Your task to perform on an android device: Open Maps and search for coffee Image 0: 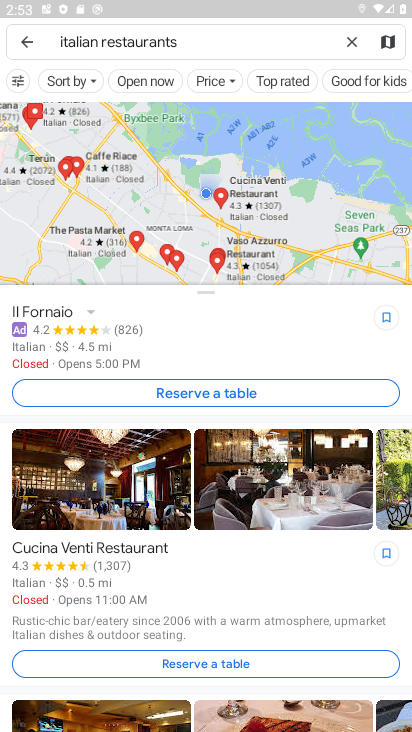
Step 0: click (348, 39)
Your task to perform on an android device: Open Maps and search for coffee Image 1: 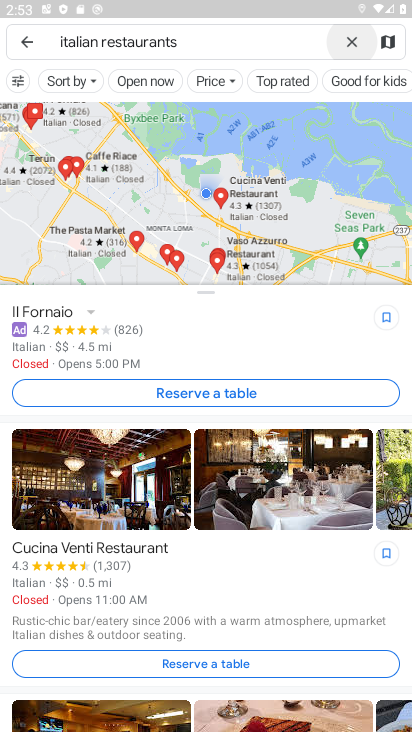
Step 1: click (352, 38)
Your task to perform on an android device: Open Maps and search for coffee Image 2: 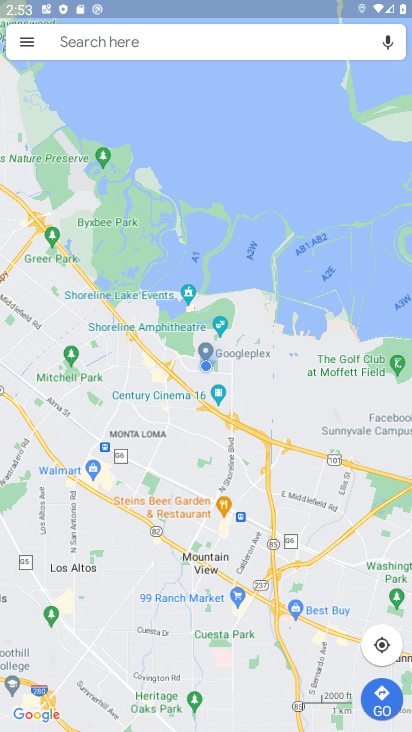
Step 2: click (183, 36)
Your task to perform on an android device: Open Maps and search for coffee Image 3: 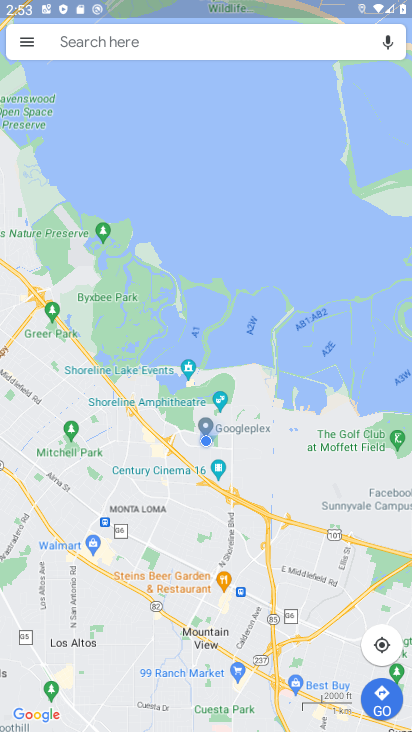
Step 3: click (350, 33)
Your task to perform on an android device: Open Maps and search for coffee Image 4: 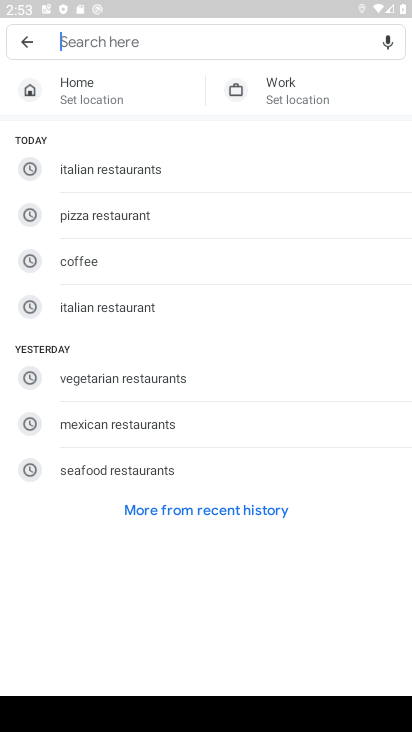
Step 4: click (32, 44)
Your task to perform on an android device: Open Maps and search for coffee Image 5: 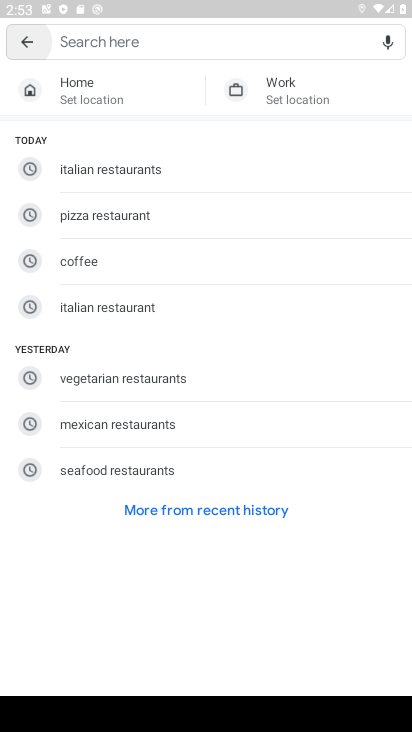
Step 5: click (29, 48)
Your task to perform on an android device: Open Maps and search for coffee Image 6: 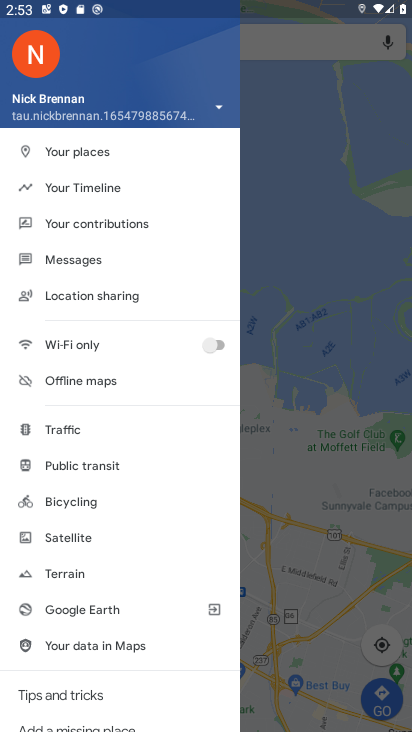
Step 6: click (289, 154)
Your task to perform on an android device: Open Maps and search for coffee Image 7: 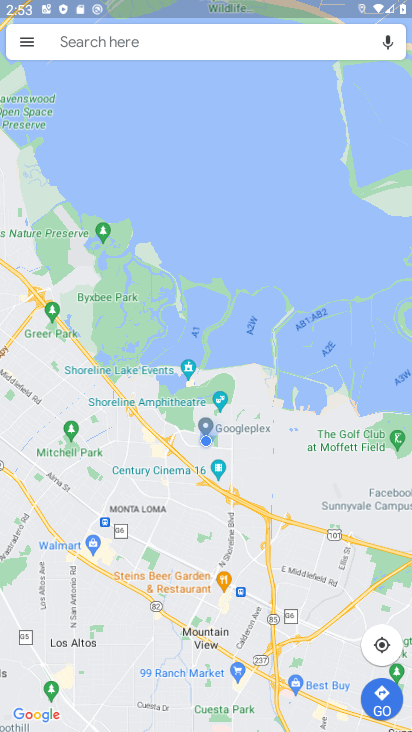
Step 7: click (141, 52)
Your task to perform on an android device: Open Maps and search for coffee Image 8: 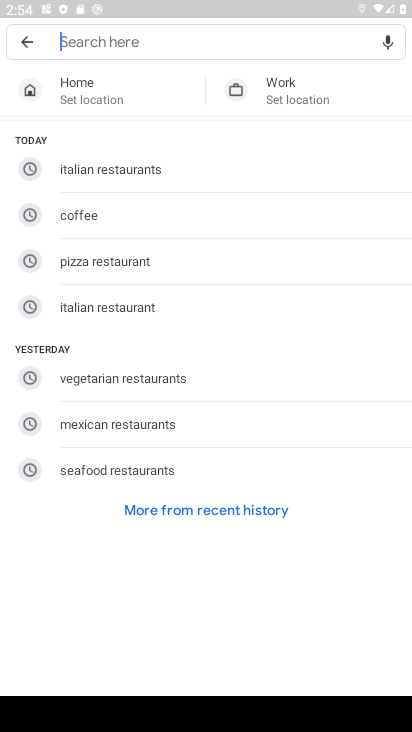
Step 8: type "coffee"
Your task to perform on an android device: Open Maps and search for coffee Image 9: 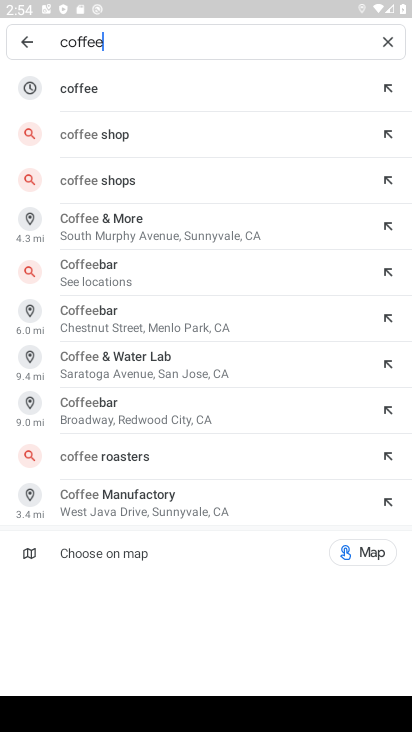
Step 9: click (88, 88)
Your task to perform on an android device: Open Maps and search for coffee Image 10: 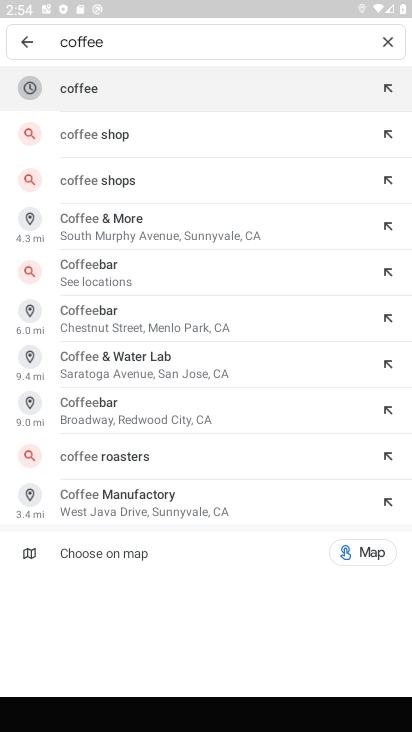
Step 10: click (93, 96)
Your task to perform on an android device: Open Maps and search for coffee Image 11: 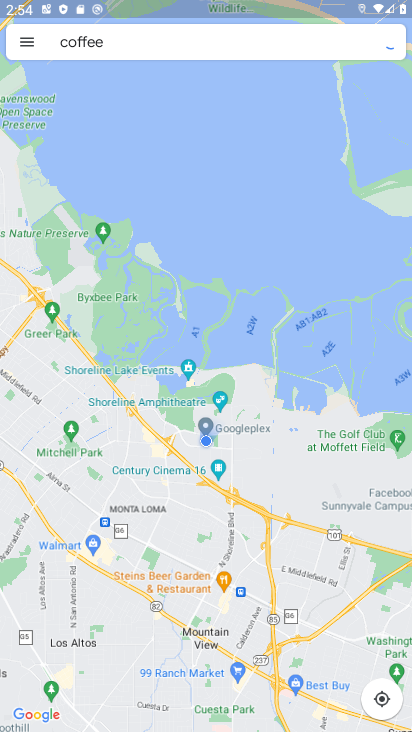
Step 11: task complete